Your task to perform on an android device: toggle pop-ups in chrome Image 0: 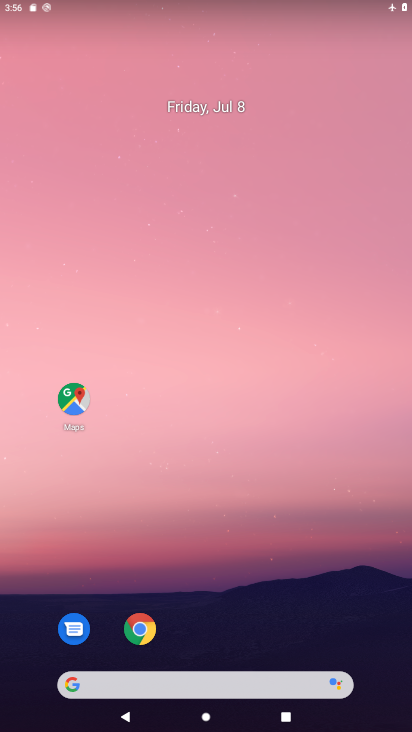
Step 0: drag from (225, 617) to (227, 319)
Your task to perform on an android device: toggle pop-ups in chrome Image 1: 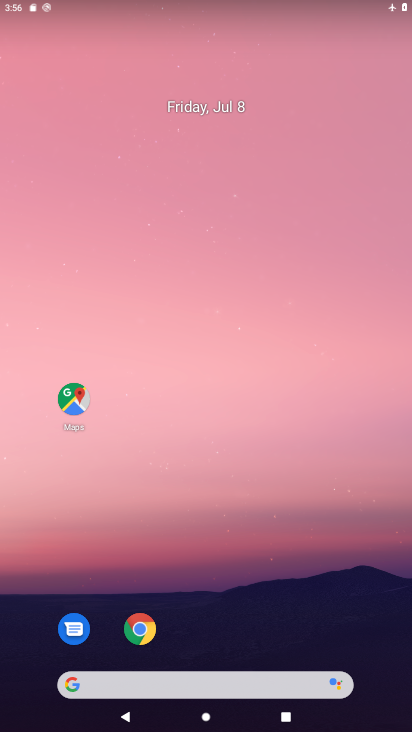
Step 1: click (146, 623)
Your task to perform on an android device: toggle pop-ups in chrome Image 2: 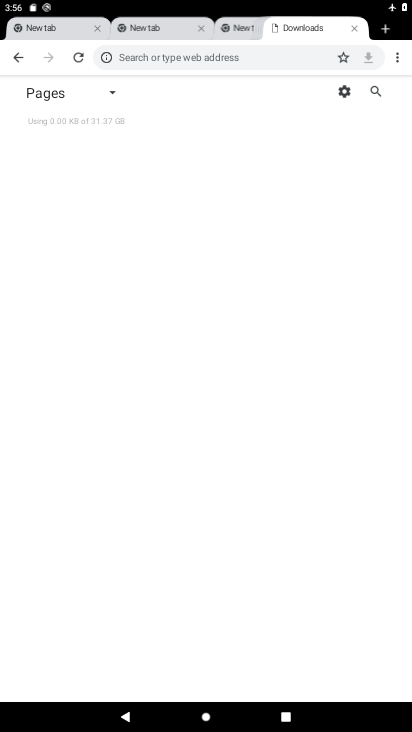
Step 2: click (403, 54)
Your task to perform on an android device: toggle pop-ups in chrome Image 3: 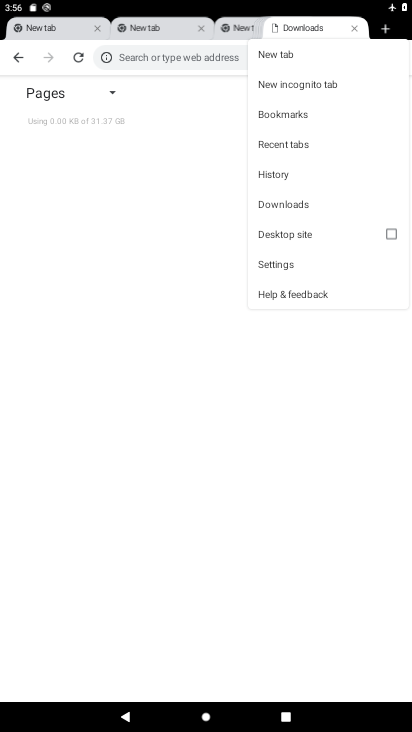
Step 3: click (304, 253)
Your task to perform on an android device: toggle pop-ups in chrome Image 4: 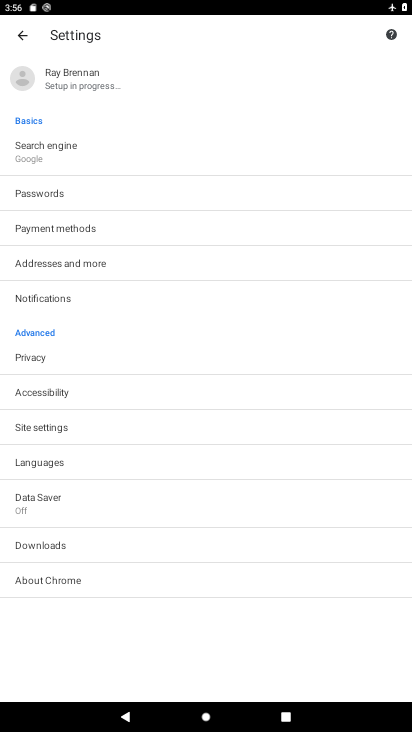
Step 4: click (70, 423)
Your task to perform on an android device: toggle pop-ups in chrome Image 5: 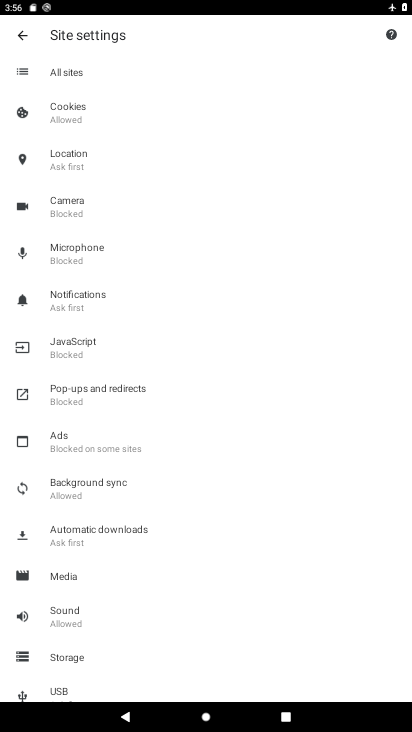
Step 5: click (110, 384)
Your task to perform on an android device: toggle pop-ups in chrome Image 6: 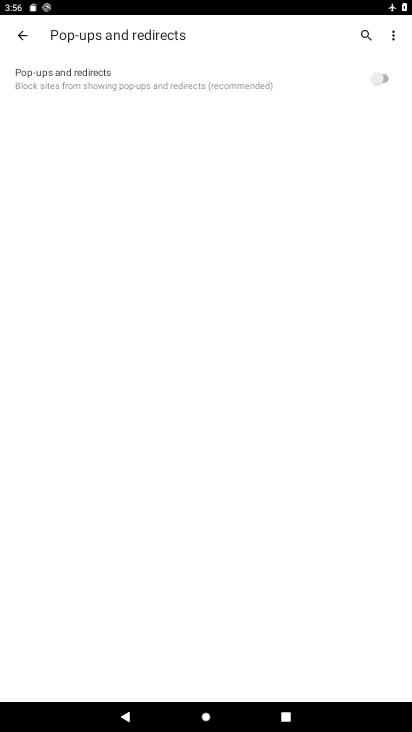
Step 6: click (376, 57)
Your task to perform on an android device: toggle pop-ups in chrome Image 7: 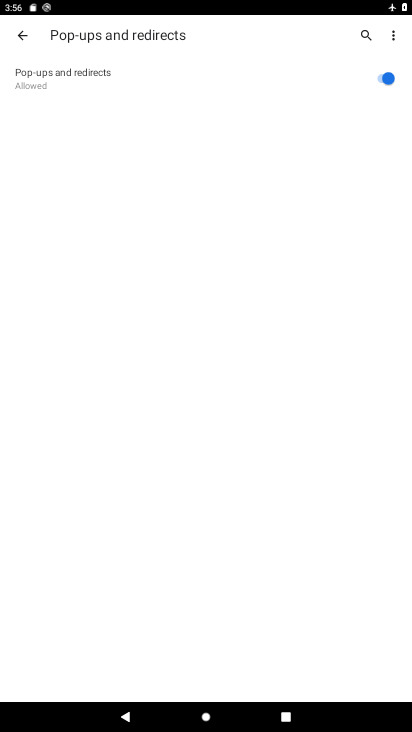
Step 7: task complete